Your task to perform on an android device: empty trash in the gmail app Image 0: 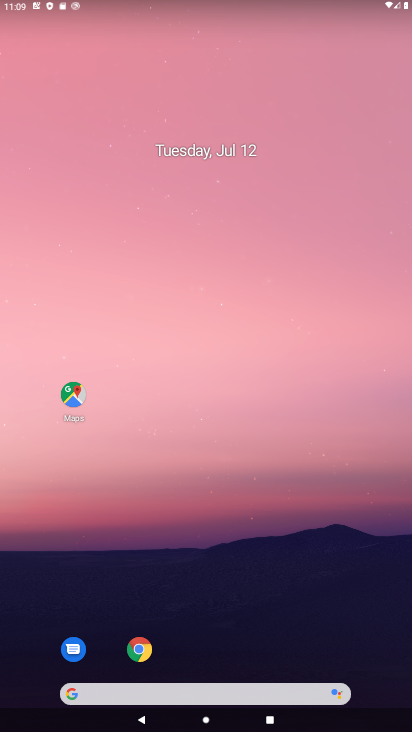
Step 0: drag from (374, 648) to (336, 93)
Your task to perform on an android device: empty trash in the gmail app Image 1: 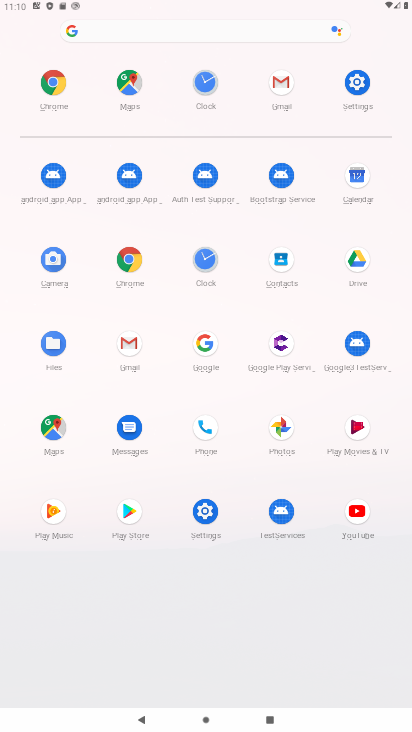
Step 1: click (127, 342)
Your task to perform on an android device: empty trash in the gmail app Image 2: 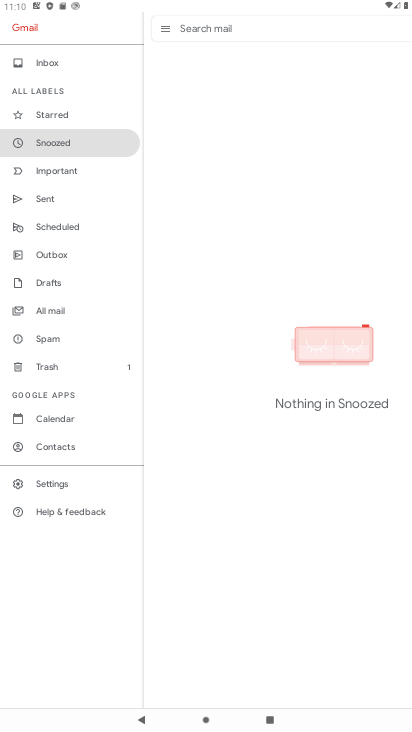
Step 2: click (47, 364)
Your task to perform on an android device: empty trash in the gmail app Image 3: 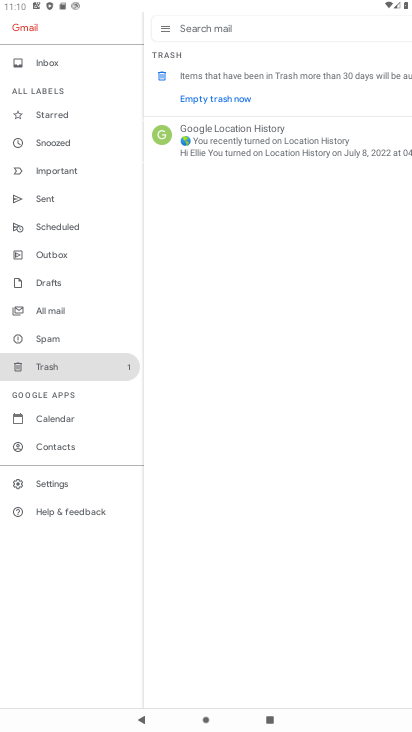
Step 3: click (212, 96)
Your task to perform on an android device: empty trash in the gmail app Image 4: 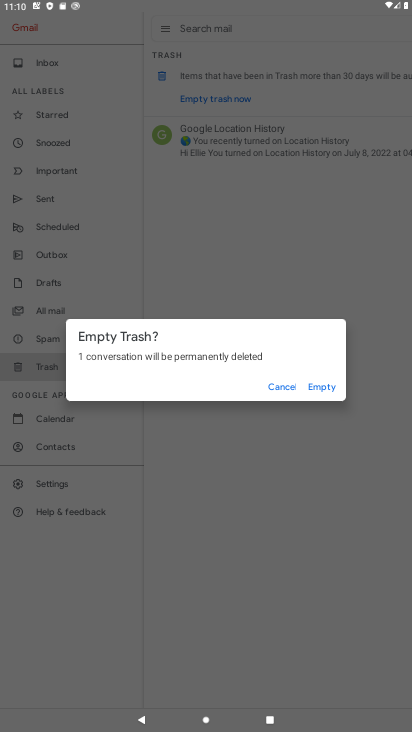
Step 4: click (320, 387)
Your task to perform on an android device: empty trash in the gmail app Image 5: 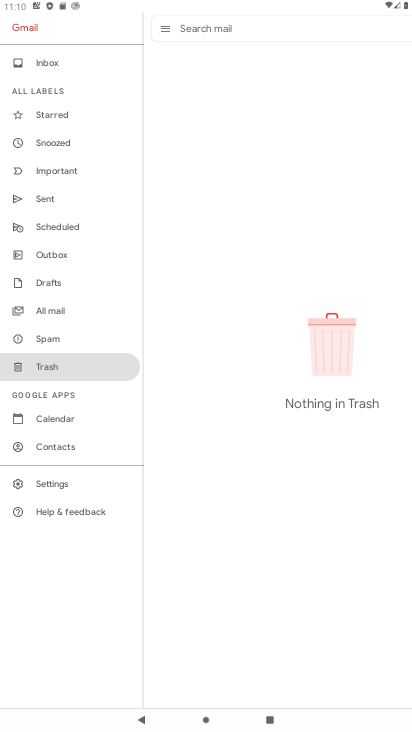
Step 5: task complete